Your task to perform on an android device: Open the stopwatch Image 0: 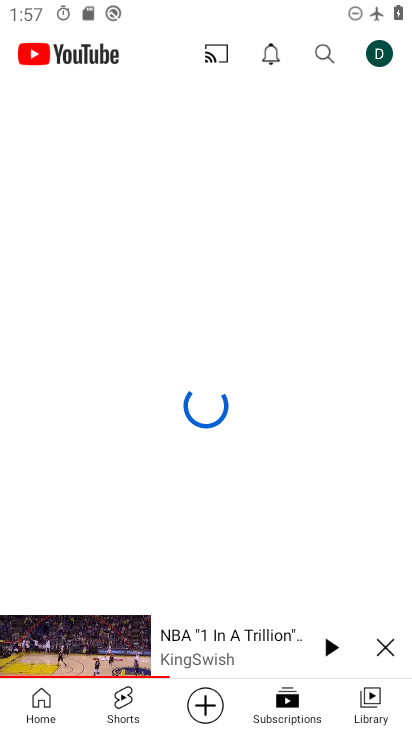
Step 0: press home button
Your task to perform on an android device: Open the stopwatch Image 1: 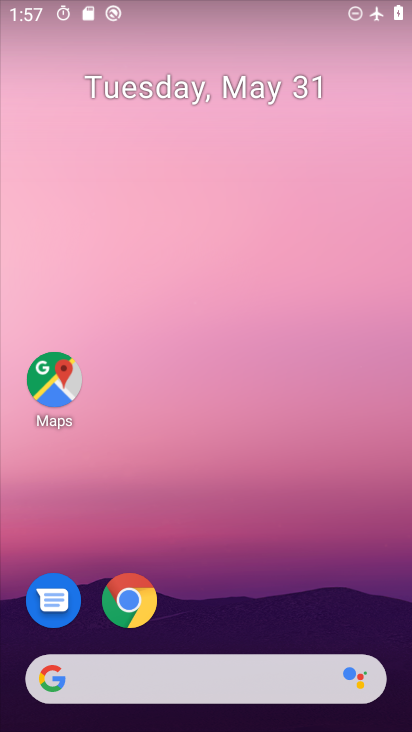
Step 1: drag from (192, 725) to (190, 168)
Your task to perform on an android device: Open the stopwatch Image 2: 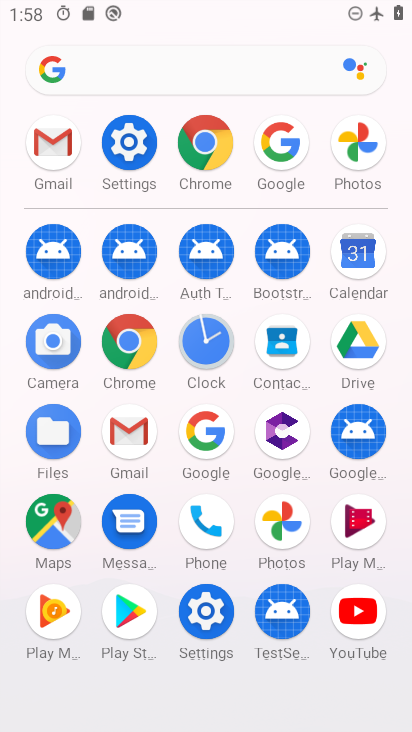
Step 2: click (208, 349)
Your task to perform on an android device: Open the stopwatch Image 3: 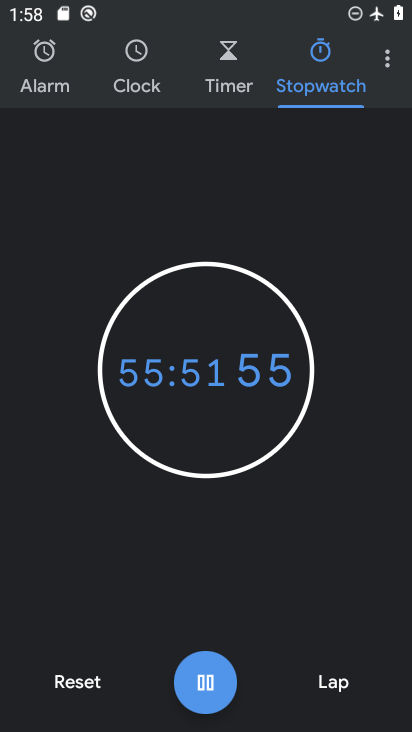
Step 3: task complete